Your task to perform on an android device: turn off location Image 0: 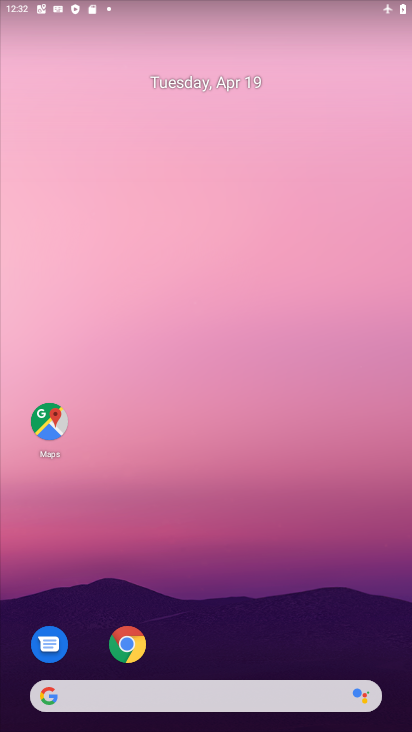
Step 0: drag from (256, 383) to (334, 15)
Your task to perform on an android device: turn off location Image 1: 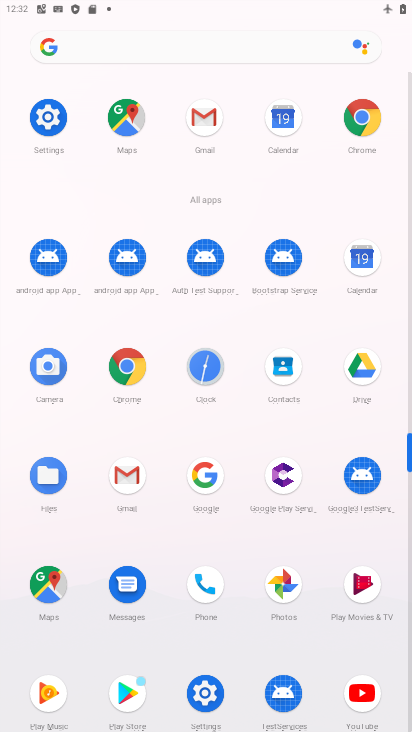
Step 1: click (58, 146)
Your task to perform on an android device: turn off location Image 2: 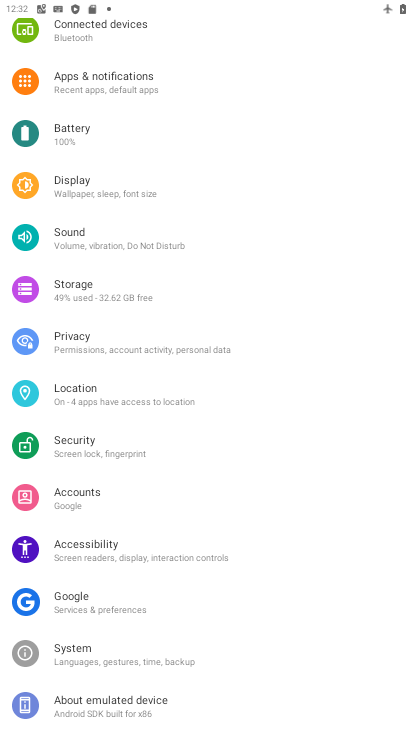
Step 2: drag from (230, 424) to (257, 233)
Your task to perform on an android device: turn off location Image 3: 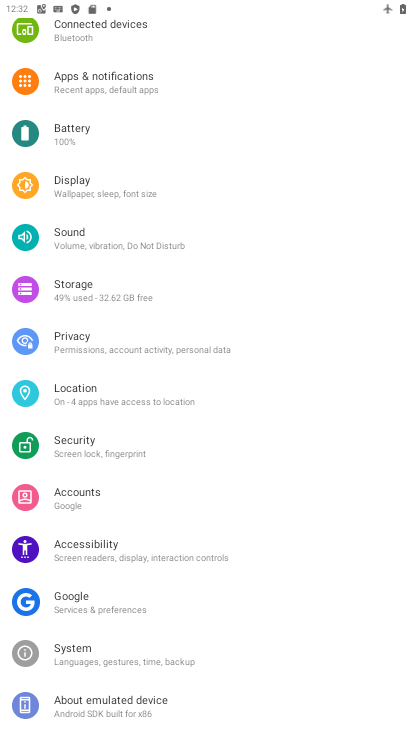
Step 3: drag from (163, 304) to (161, 582)
Your task to perform on an android device: turn off location Image 4: 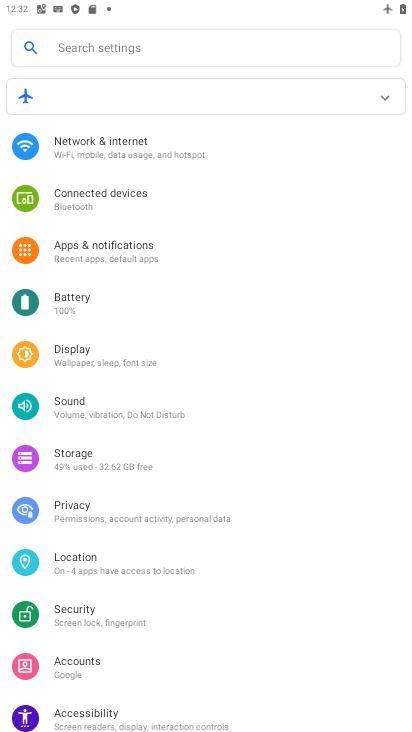
Step 4: click (131, 557)
Your task to perform on an android device: turn off location Image 5: 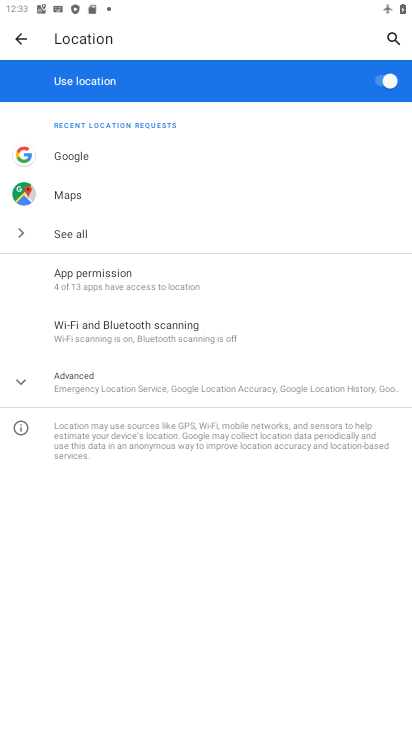
Step 5: click (159, 369)
Your task to perform on an android device: turn off location Image 6: 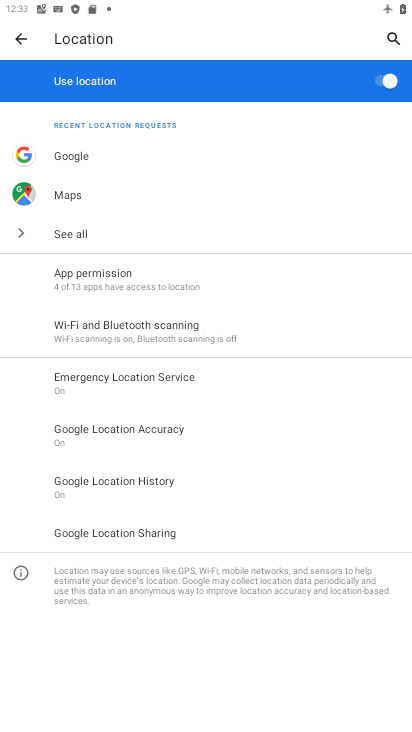
Step 6: click (221, 476)
Your task to perform on an android device: turn off location Image 7: 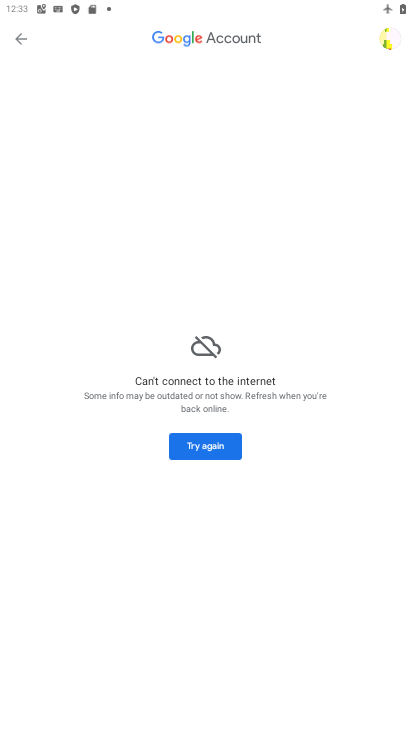
Step 7: click (32, 45)
Your task to perform on an android device: turn off location Image 8: 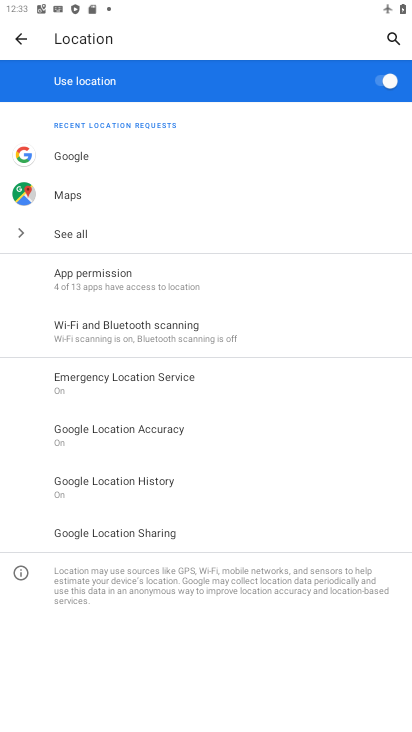
Step 8: click (382, 106)
Your task to perform on an android device: turn off location Image 9: 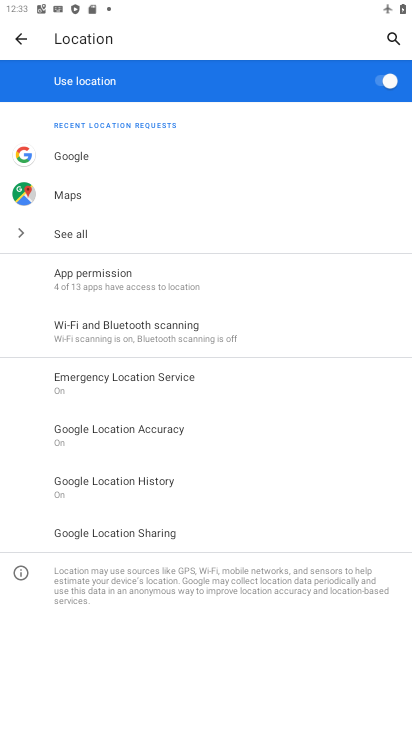
Step 9: click (382, 87)
Your task to perform on an android device: turn off location Image 10: 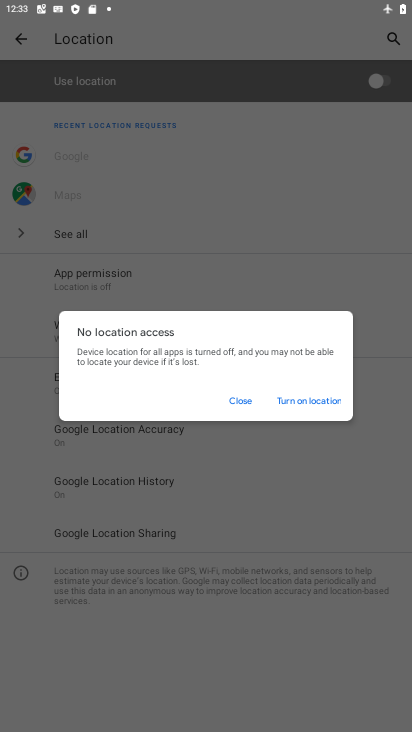
Step 10: click (332, 395)
Your task to perform on an android device: turn off location Image 11: 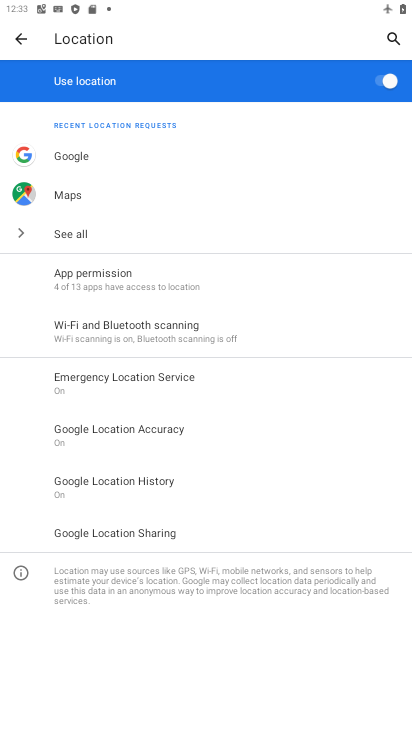
Step 11: task complete